Your task to perform on an android device: open a new tab in the chrome app Image 0: 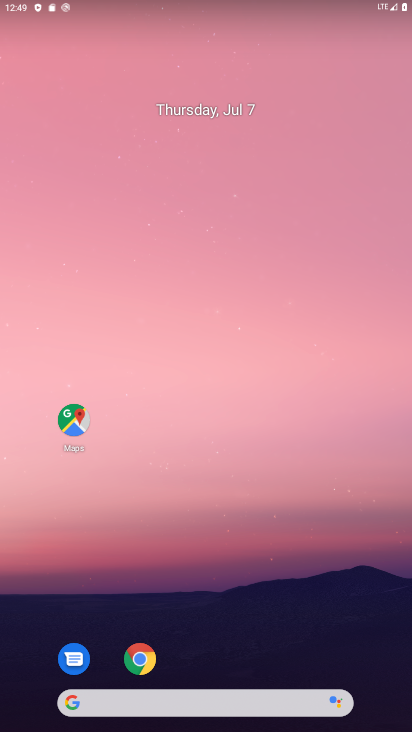
Step 0: click (145, 659)
Your task to perform on an android device: open a new tab in the chrome app Image 1: 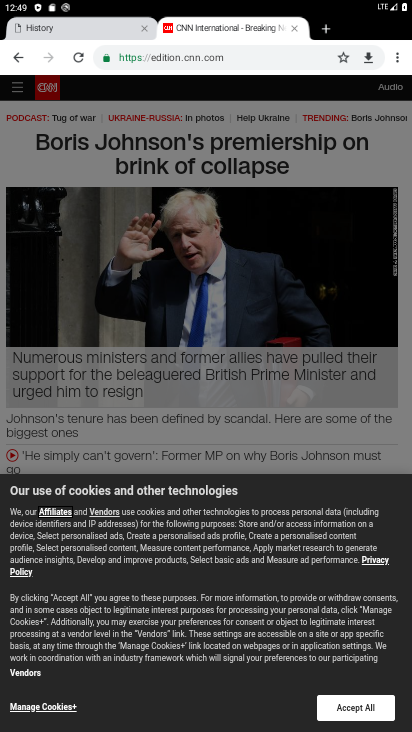
Step 1: click (396, 63)
Your task to perform on an android device: open a new tab in the chrome app Image 2: 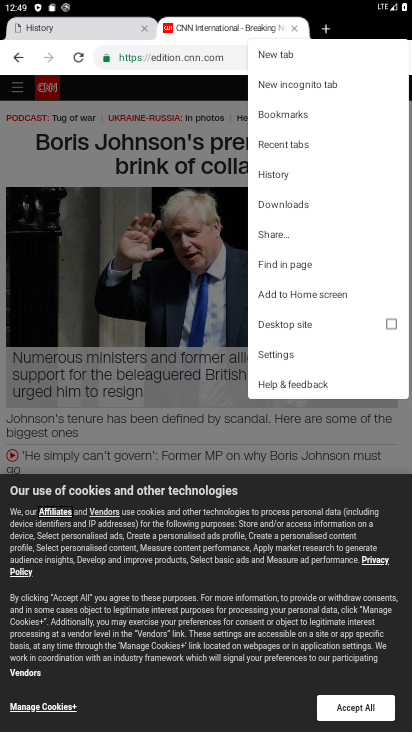
Step 2: click (272, 53)
Your task to perform on an android device: open a new tab in the chrome app Image 3: 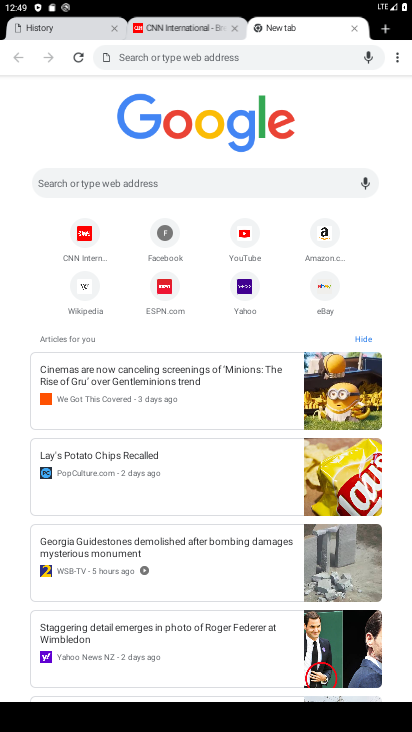
Step 3: task complete